Your task to perform on an android device: turn on wifi Image 0: 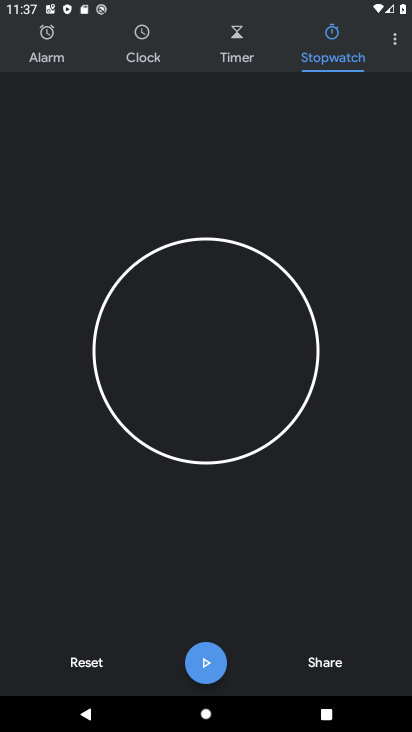
Step 0: press home button
Your task to perform on an android device: turn on wifi Image 1: 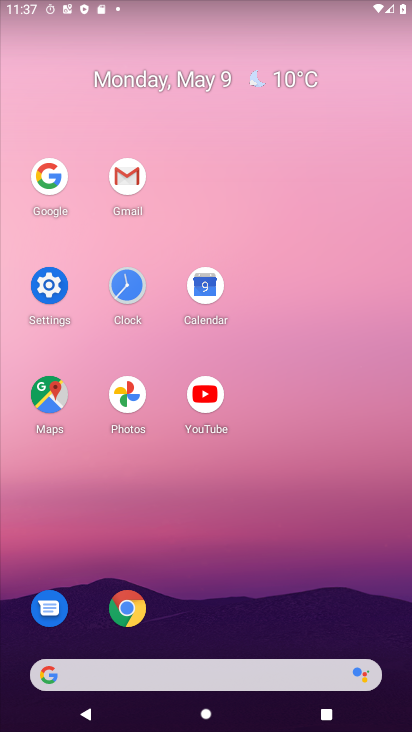
Step 1: click (33, 296)
Your task to perform on an android device: turn on wifi Image 2: 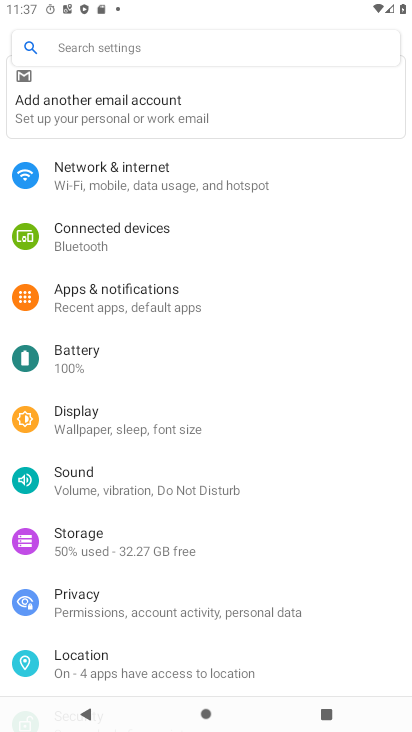
Step 2: click (131, 184)
Your task to perform on an android device: turn on wifi Image 3: 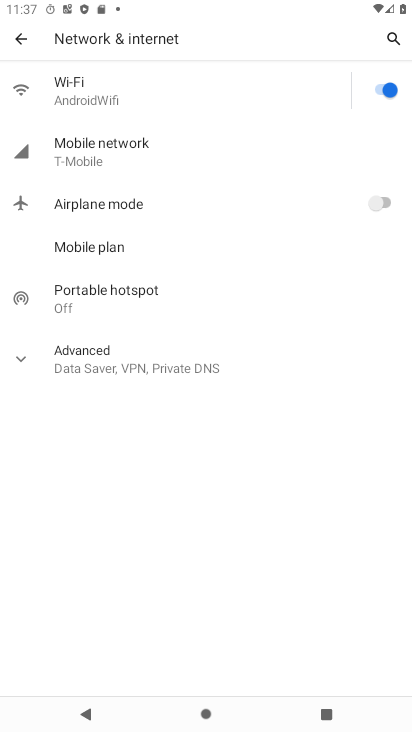
Step 3: task complete